Your task to perform on an android device: create a new album in the google photos Image 0: 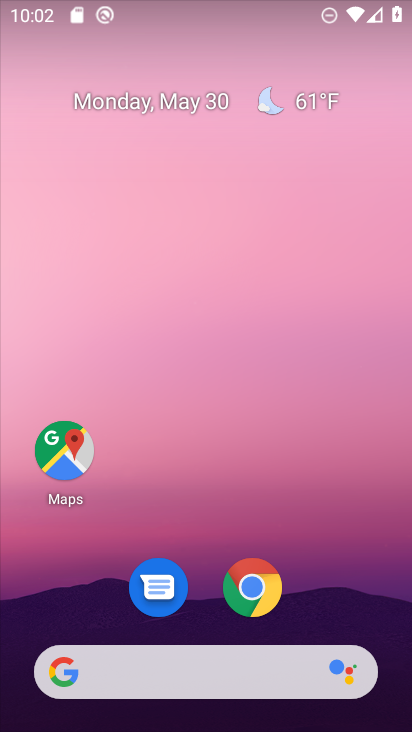
Step 0: drag from (198, 648) to (187, 83)
Your task to perform on an android device: create a new album in the google photos Image 1: 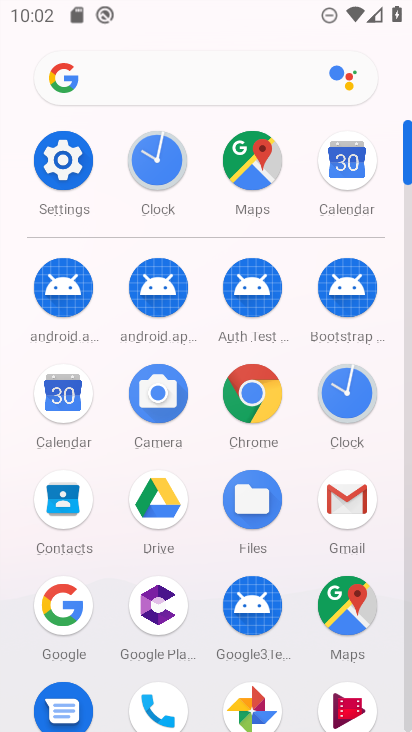
Step 1: click (242, 692)
Your task to perform on an android device: create a new album in the google photos Image 2: 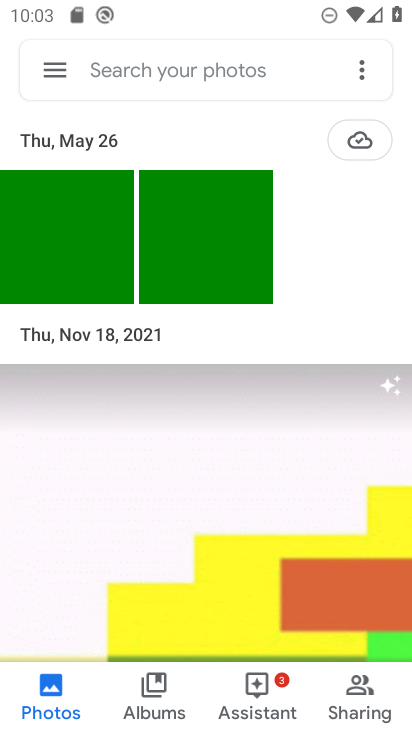
Step 2: click (78, 260)
Your task to perform on an android device: create a new album in the google photos Image 3: 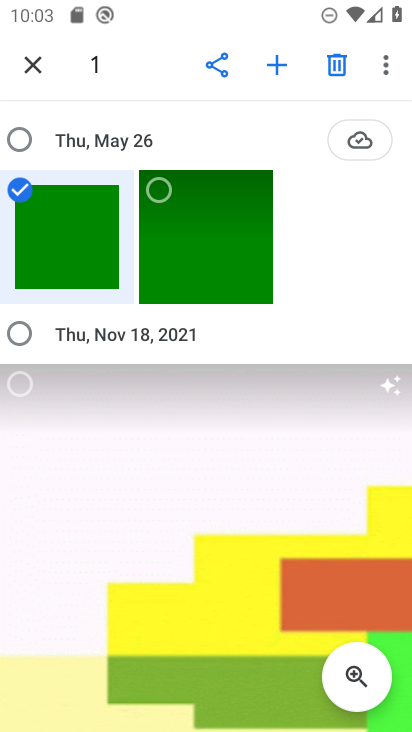
Step 3: click (149, 259)
Your task to perform on an android device: create a new album in the google photos Image 4: 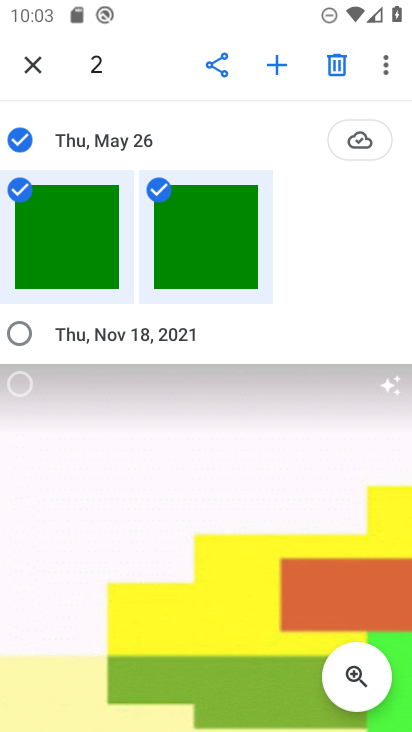
Step 4: click (280, 55)
Your task to perform on an android device: create a new album in the google photos Image 5: 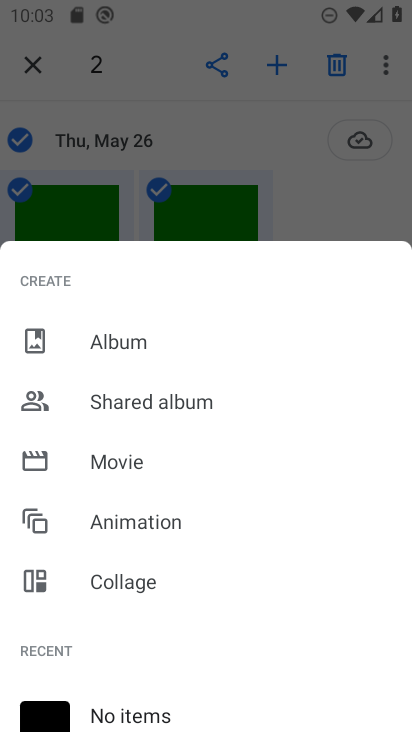
Step 5: click (108, 333)
Your task to perform on an android device: create a new album in the google photos Image 6: 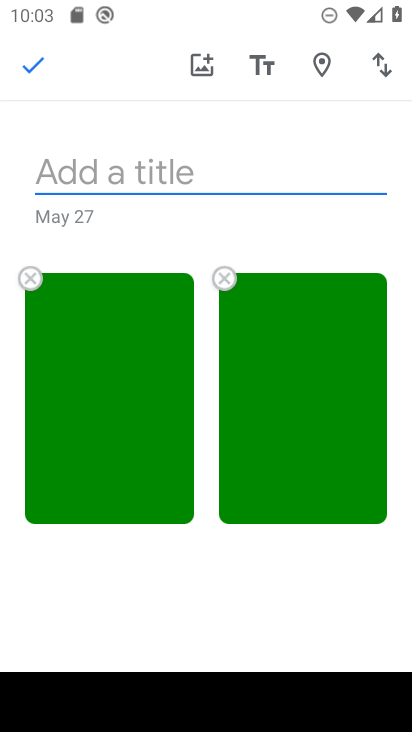
Step 6: type "g"
Your task to perform on an android device: create a new album in the google photos Image 7: 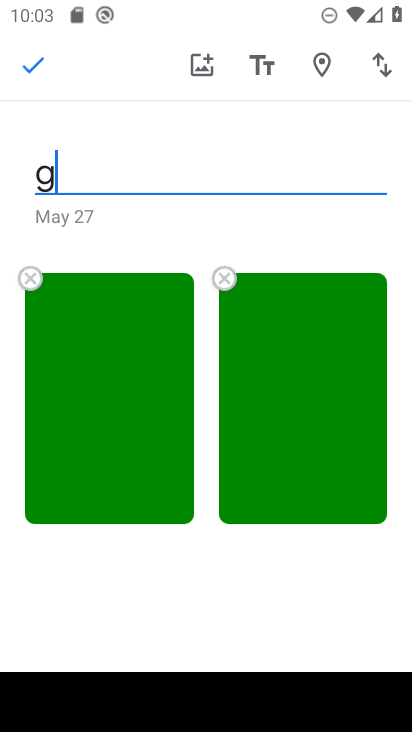
Step 7: type ""
Your task to perform on an android device: create a new album in the google photos Image 8: 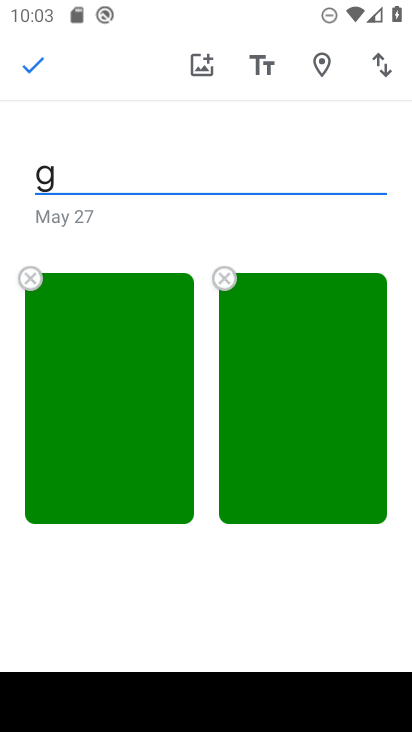
Step 8: click (31, 64)
Your task to perform on an android device: create a new album in the google photos Image 9: 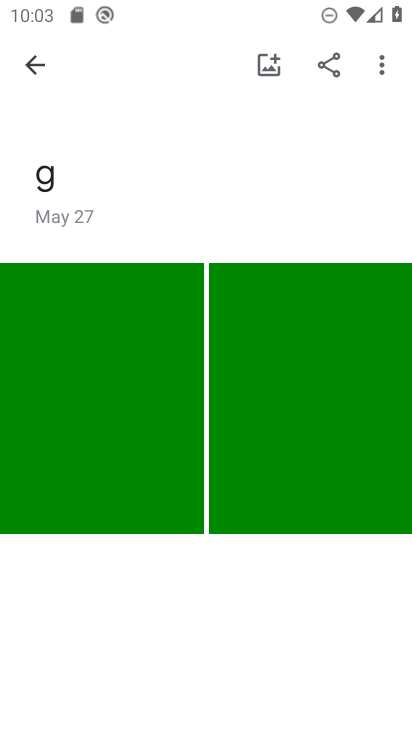
Step 9: task complete